Your task to perform on an android device: turn off airplane mode Image 0: 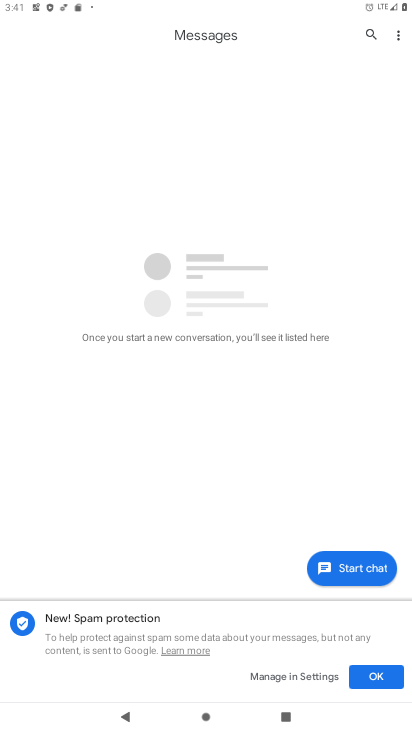
Step 0: press home button
Your task to perform on an android device: turn off airplane mode Image 1: 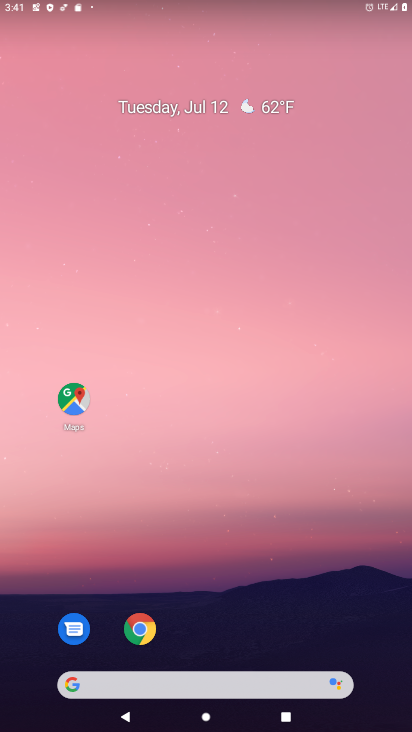
Step 1: drag from (196, 655) to (207, 93)
Your task to perform on an android device: turn off airplane mode Image 2: 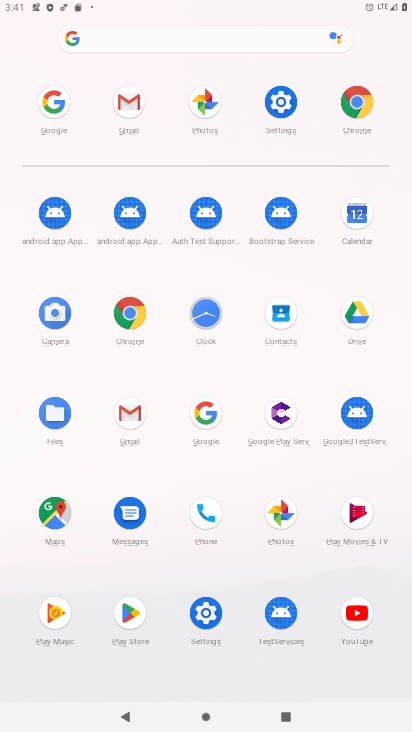
Step 2: click (219, 615)
Your task to perform on an android device: turn off airplane mode Image 3: 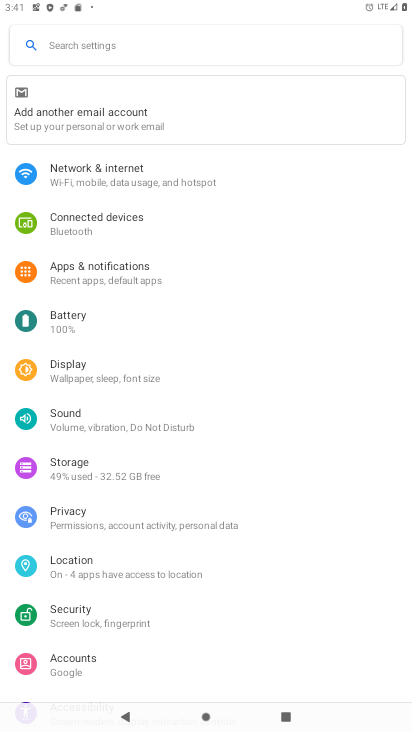
Step 3: click (110, 196)
Your task to perform on an android device: turn off airplane mode Image 4: 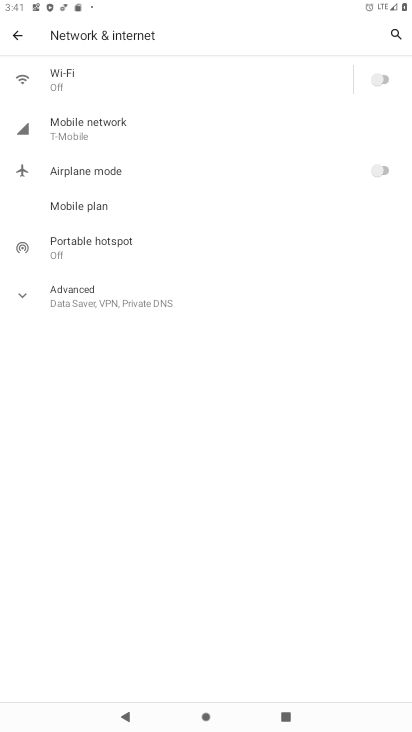
Step 4: task complete